Your task to perform on an android device: open app "Etsy: Buy & Sell Unique Items" (install if not already installed) Image 0: 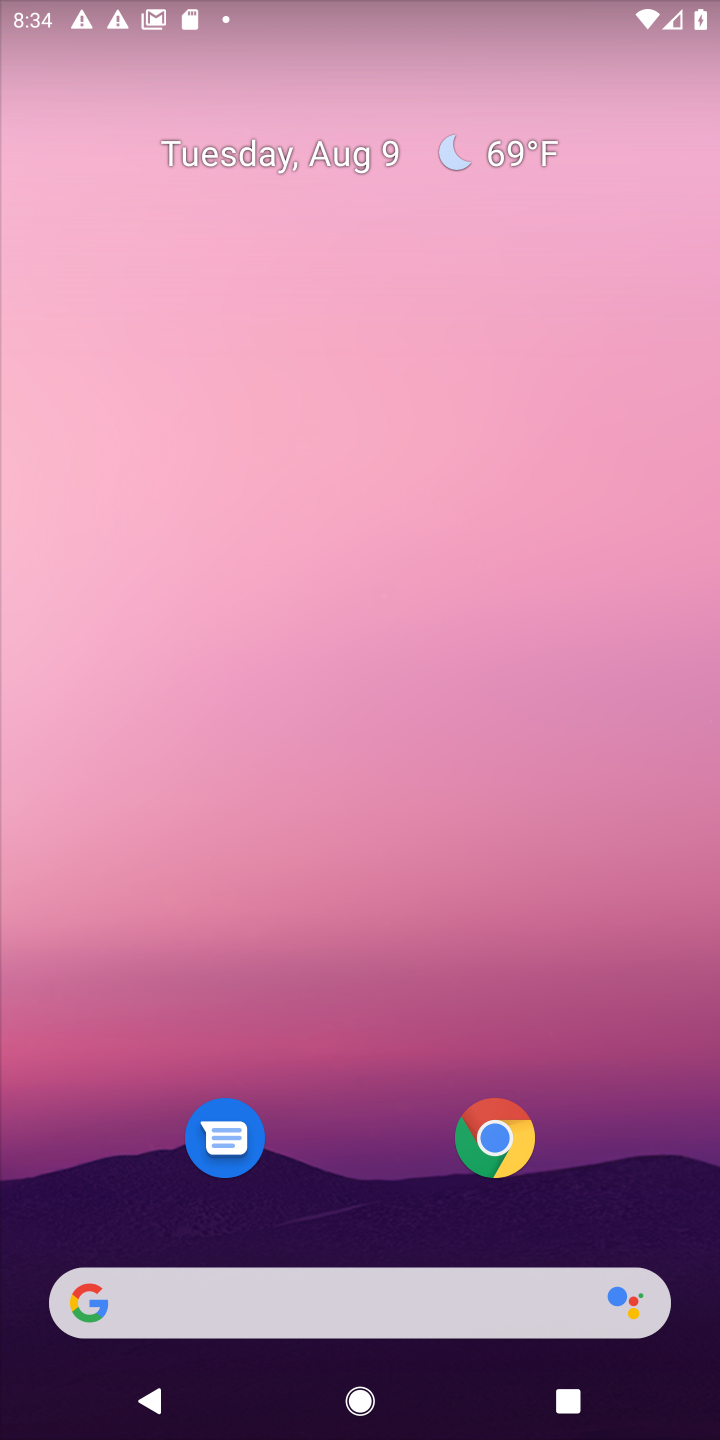
Step 0: drag from (333, 766) to (334, 382)
Your task to perform on an android device: open app "Etsy: Buy & Sell Unique Items" (install if not already installed) Image 1: 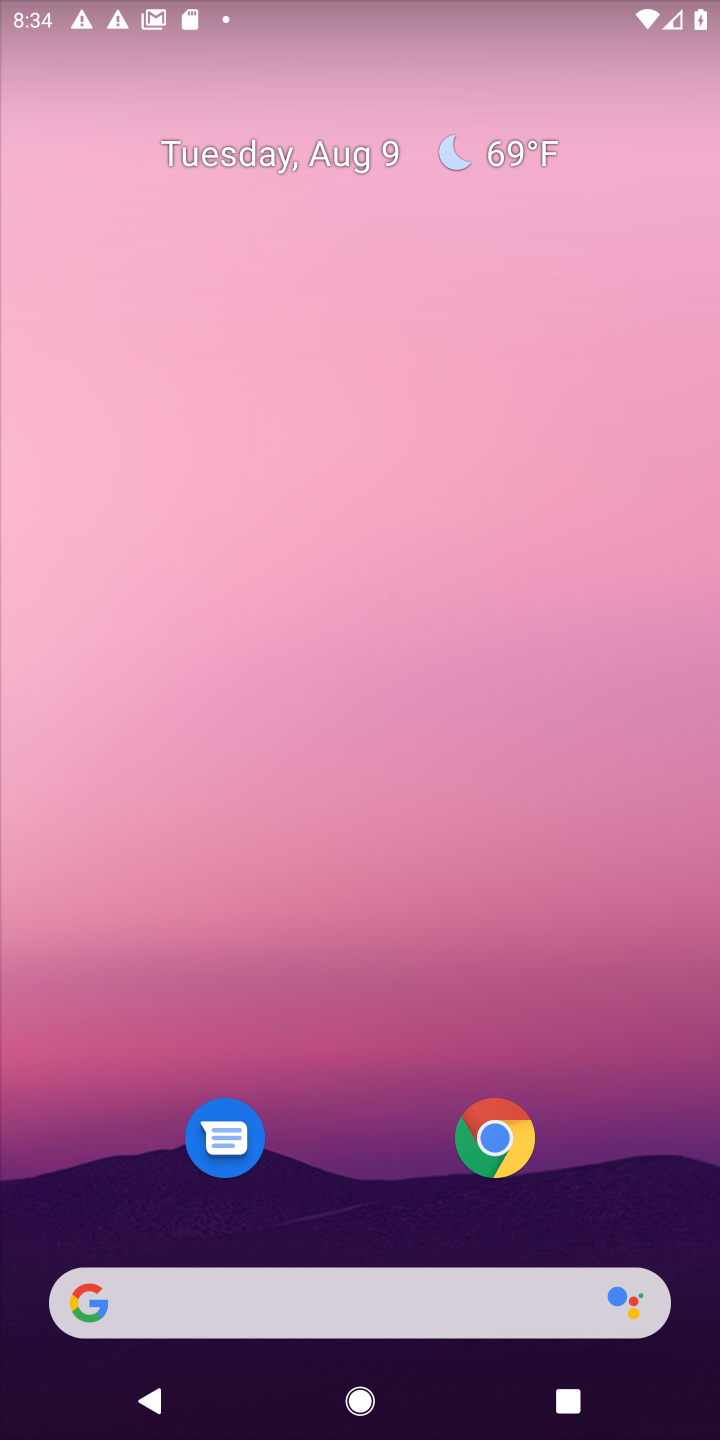
Step 1: drag from (370, 1256) to (333, 130)
Your task to perform on an android device: open app "Etsy: Buy & Sell Unique Items" (install if not already installed) Image 2: 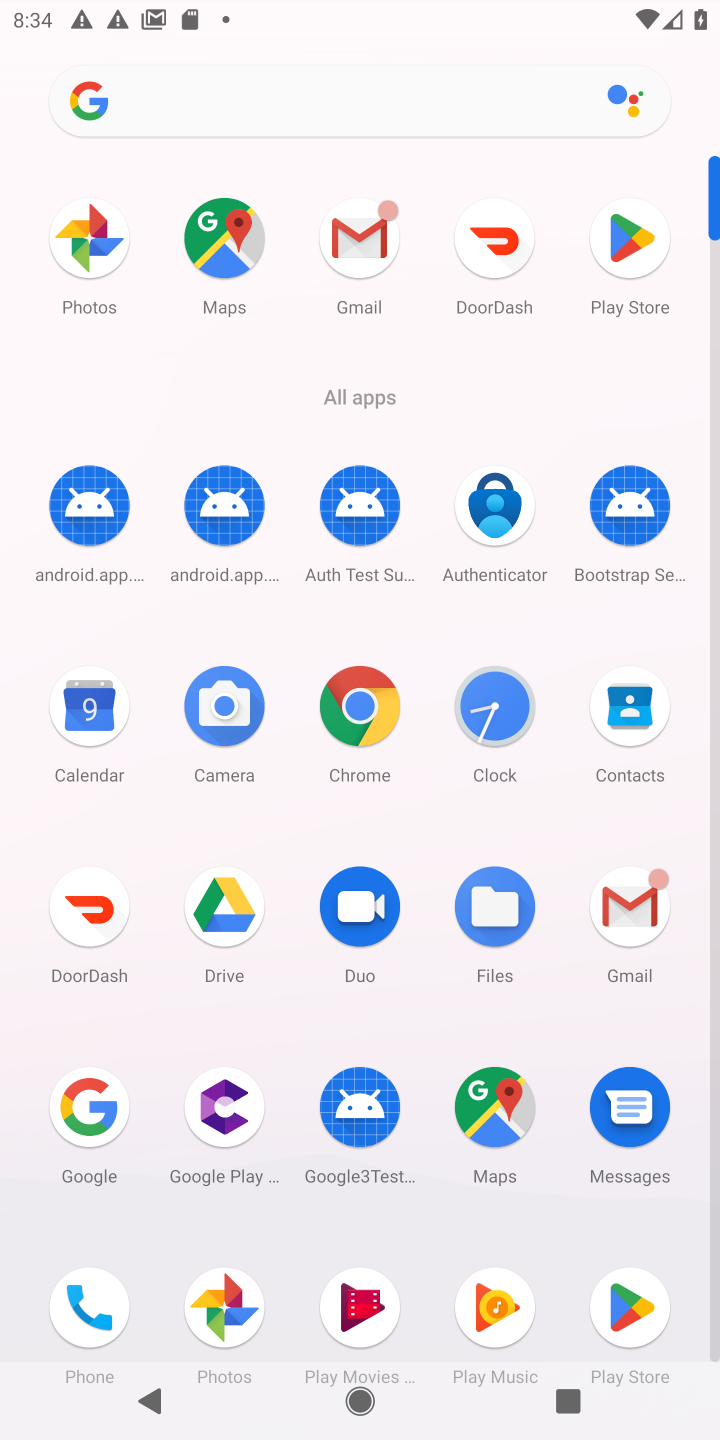
Step 2: click (635, 282)
Your task to perform on an android device: open app "Etsy: Buy & Sell Unique Items" (install if not already installed) Image 3: 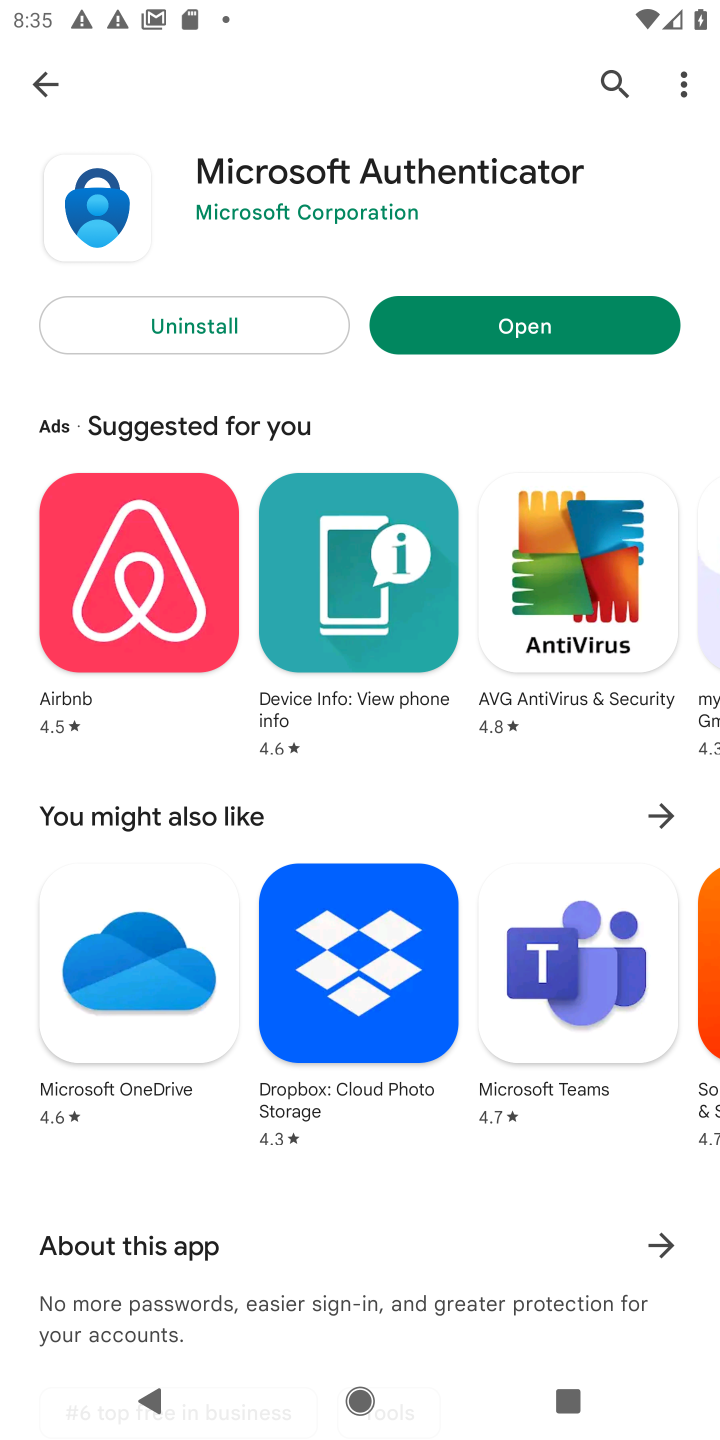
Step 3: click (531, 310)
Your task to perform on an android device: open app "Etsy: Buy & Sell Unique Items" (install if not already installed) Image 4: 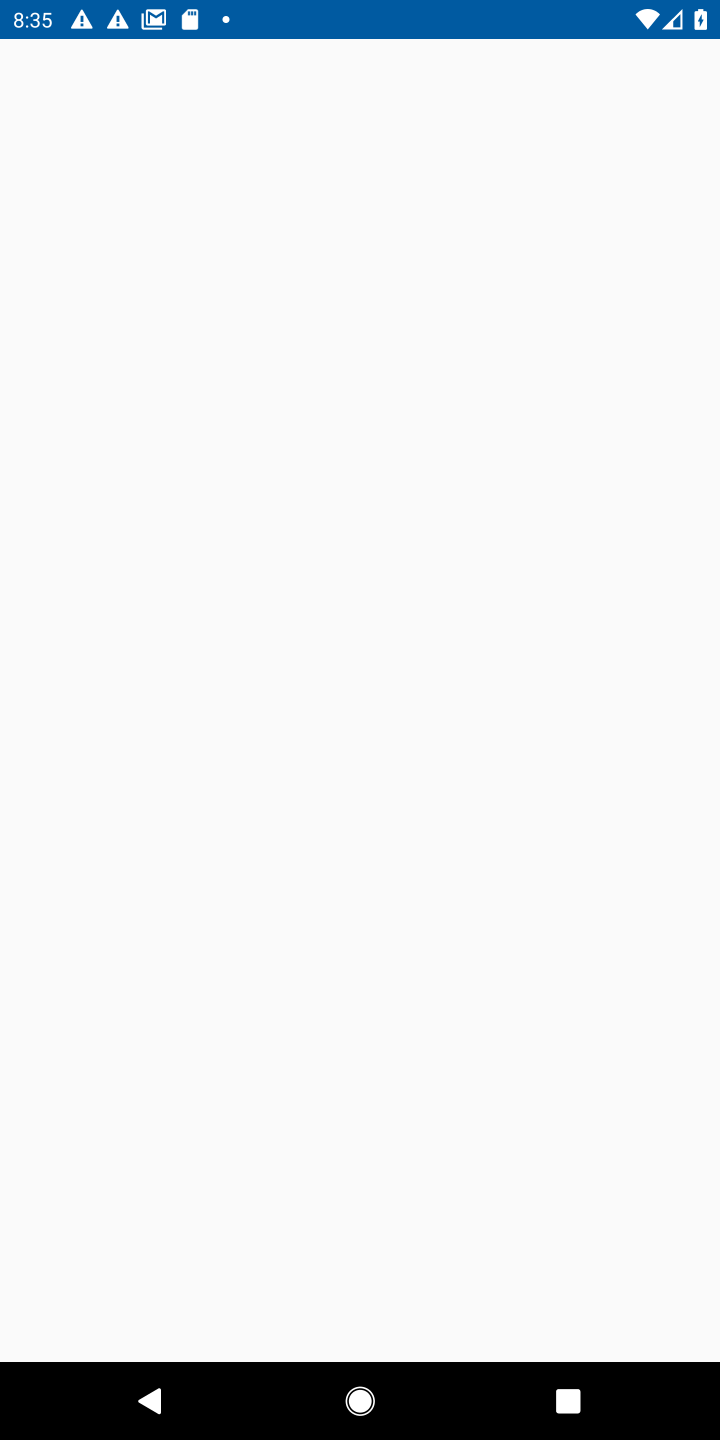
Step 4: press back button
Your task to perform on an android device: open app "Etsy: Buy & Sell Unique Items" (install if not already installed) Image 5: 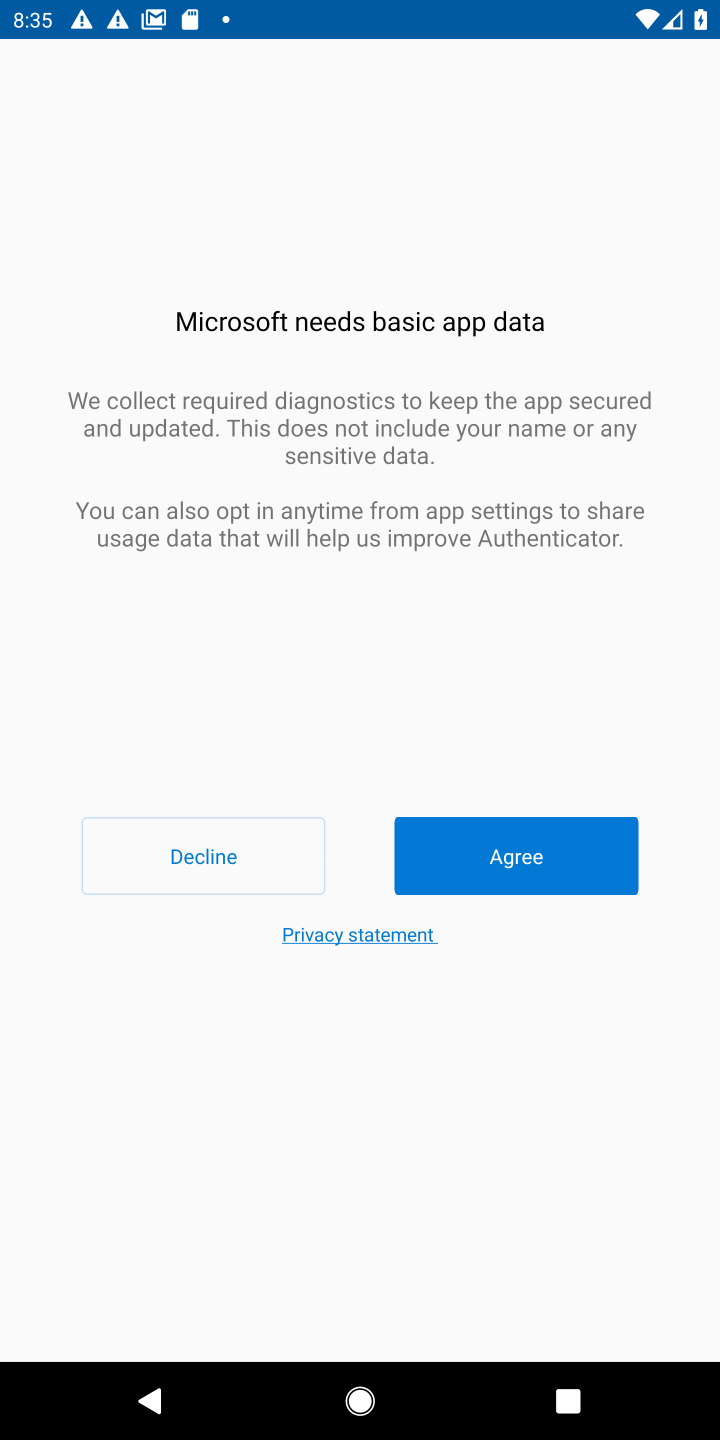
Step 5: press back button
Your task to perform on an android device: open app "Etsy: Buy & Sell Unique Items" (install if not already installed) Image 6: 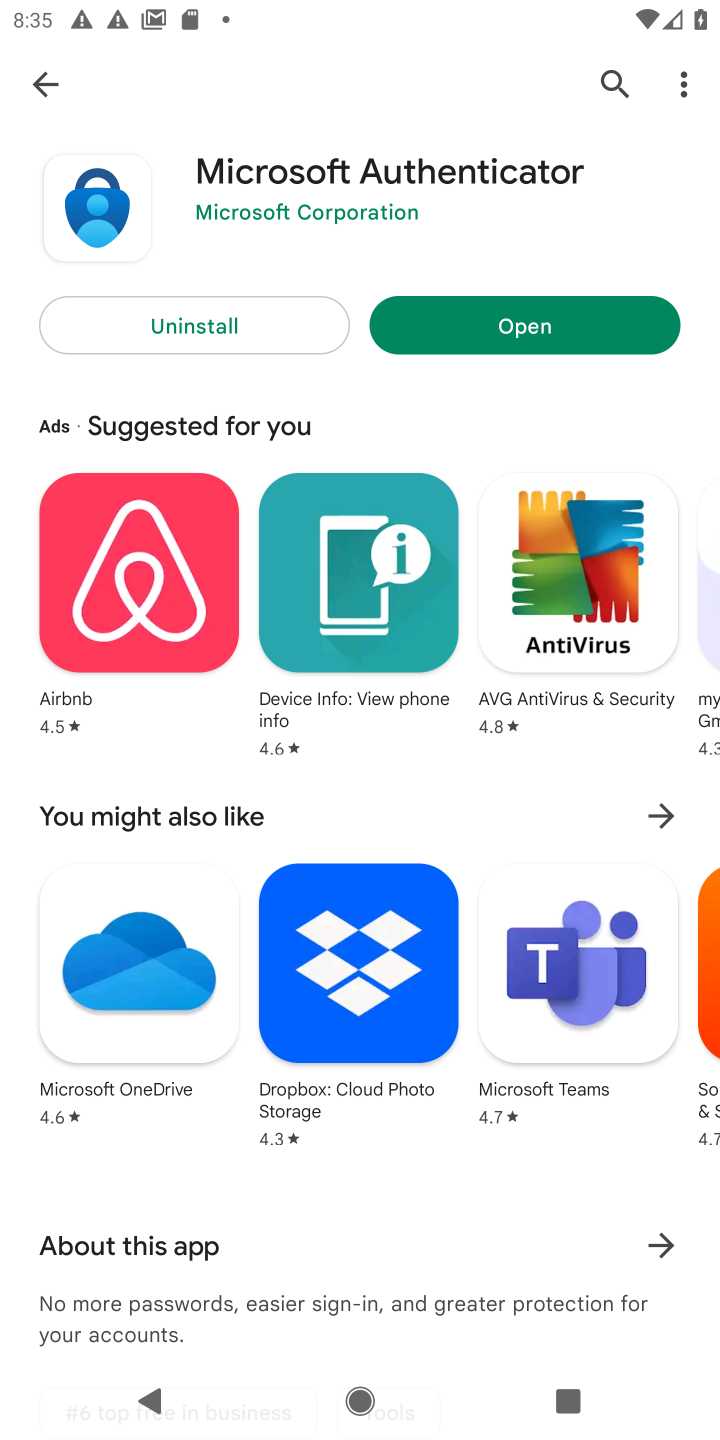
Step 6: press back button
Your task to perform on an android device: open app "Etsy: Buy & Sell Unique Items" (install if not already installed) Image 7: 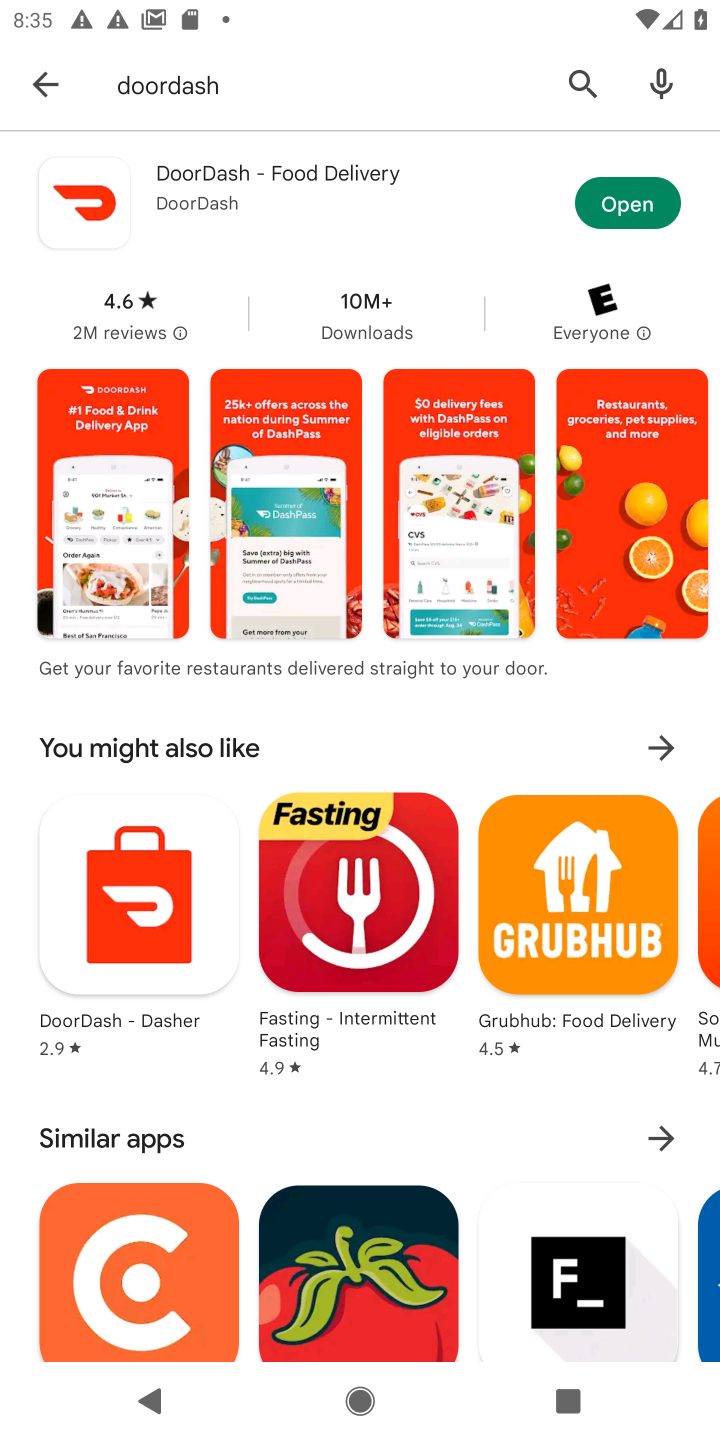
Step 7: click (589, 75)
Your task to perform on an android device: open app "Etsy: Buy & Sell Unique Items" (install if not already installed) Image 8: 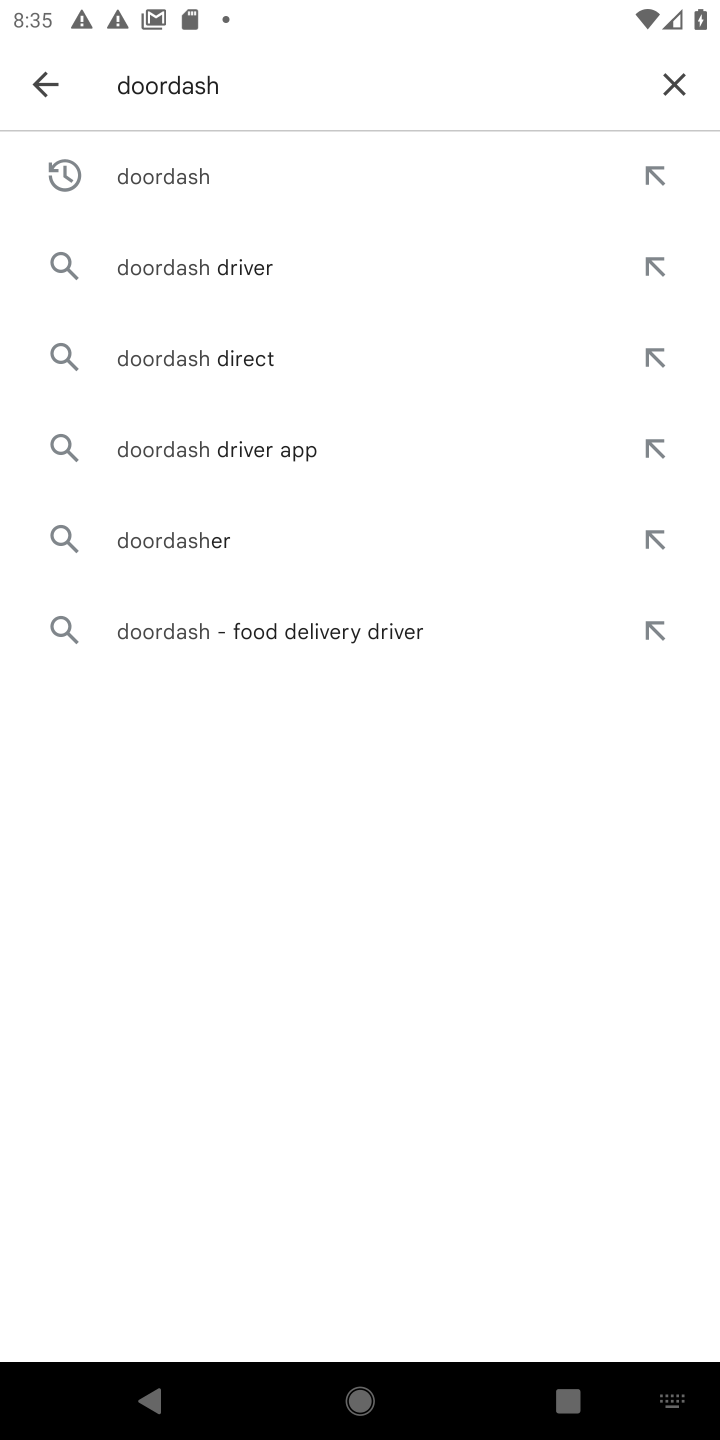
Step 8: click (662, 75)
Your task to perform on an android device: open app "Etsy: Buy & Sell Unique Items" (install if not already installed) Image 9: 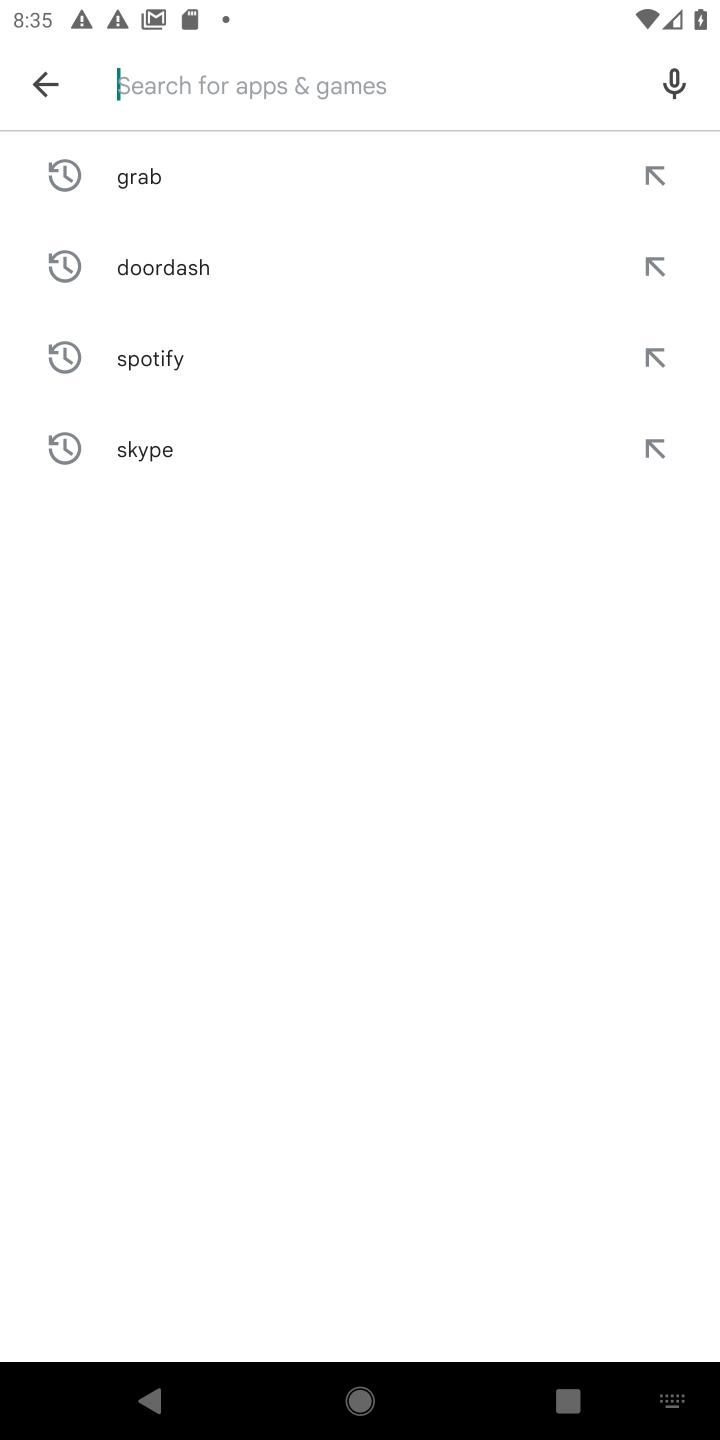
Step 9: type "etsy"
Your task to perform on an android device: open app "Etsy: Buy & Sell Unique Items" (install if not already installed) Image 10: 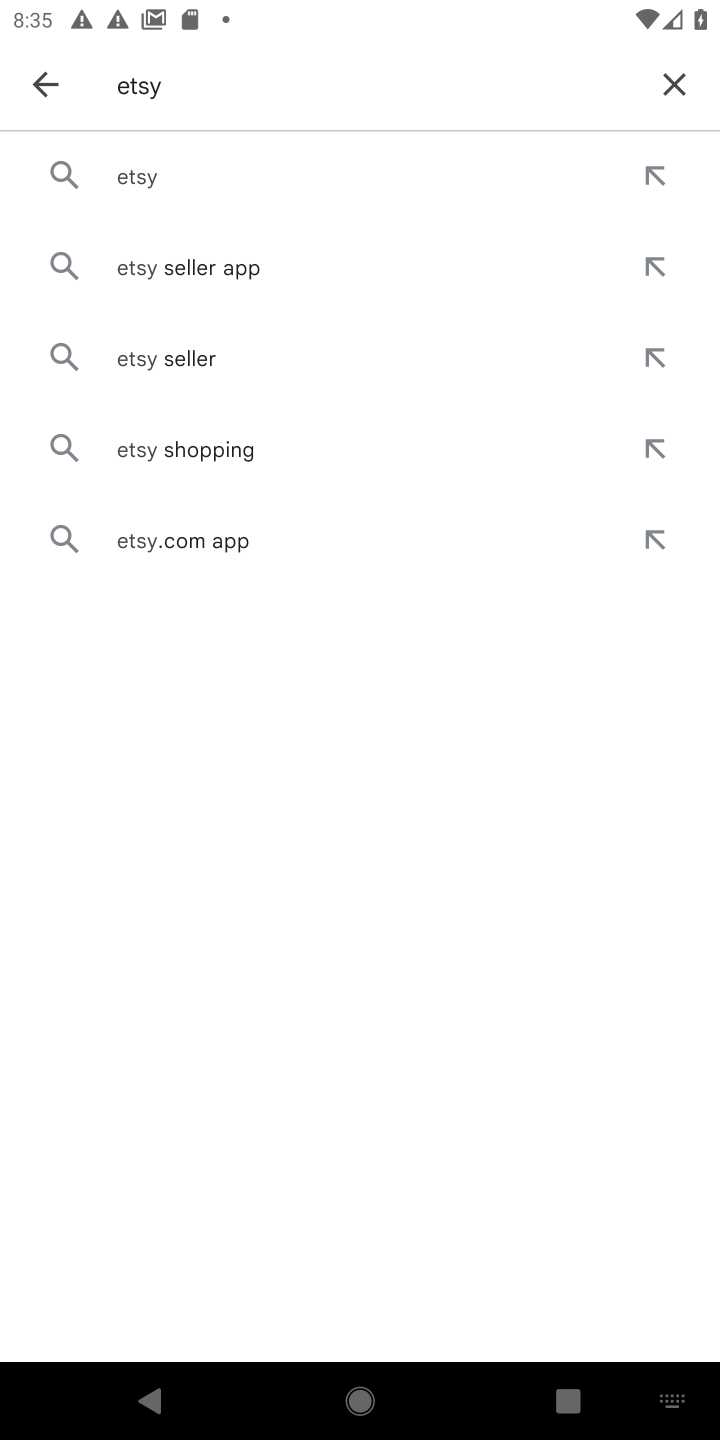
Step 10: click (251, 177)
Your task to perform on an android device: open app "Etsy: Buy & Sell Unique Items" (install if not already installed) Image 11: 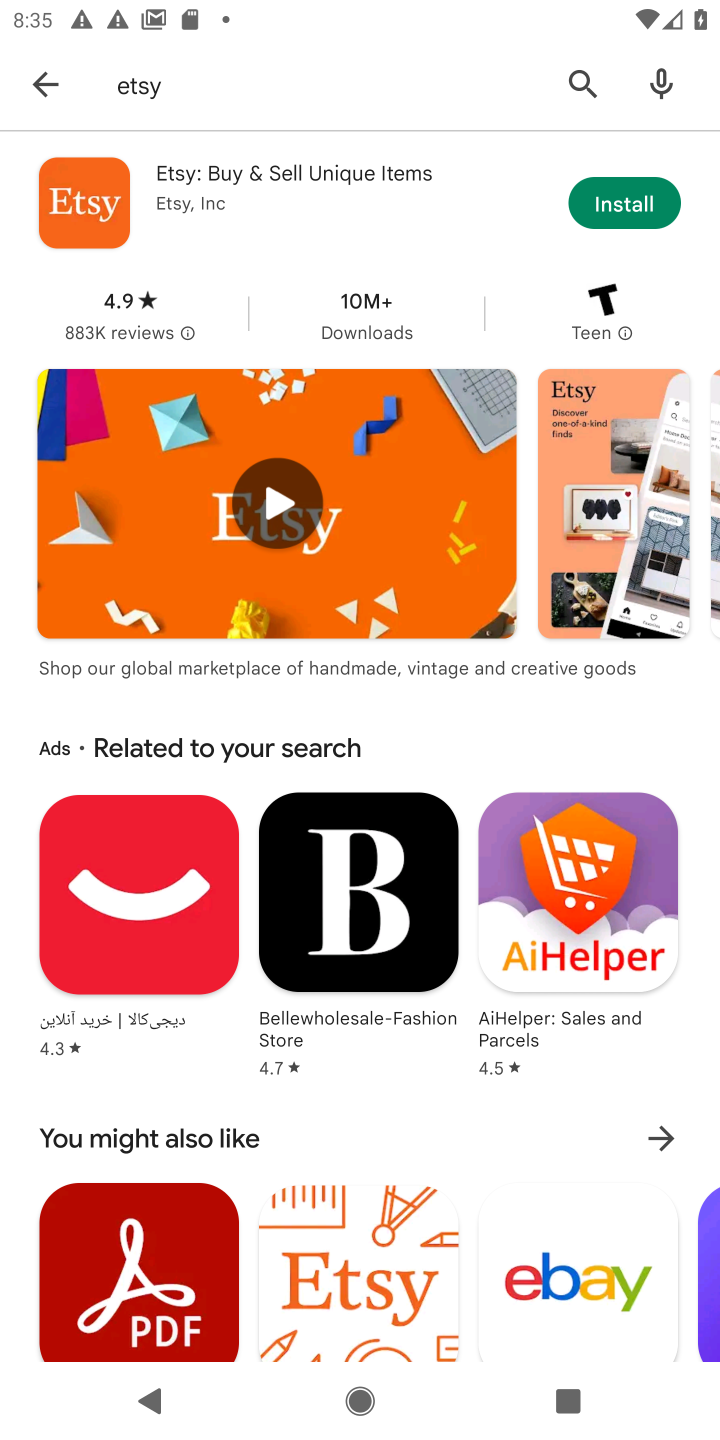
Step 11: click (605, 204)
Your task to perform on an android device: open app "Etsy: Buy & Sell Unique Items" (install if not already installed) Image 12: 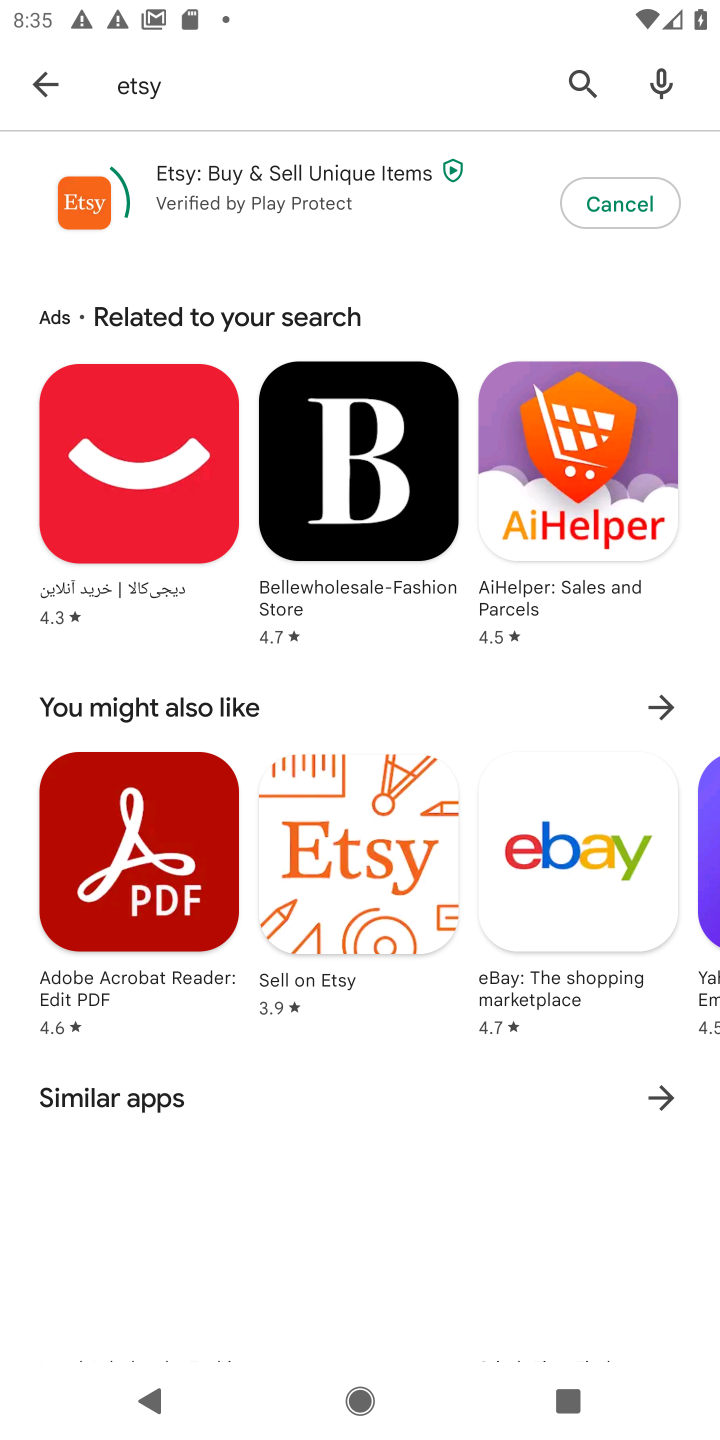
Step 12: task complete